Your task to perform on an android device: Go to Google Image 0: 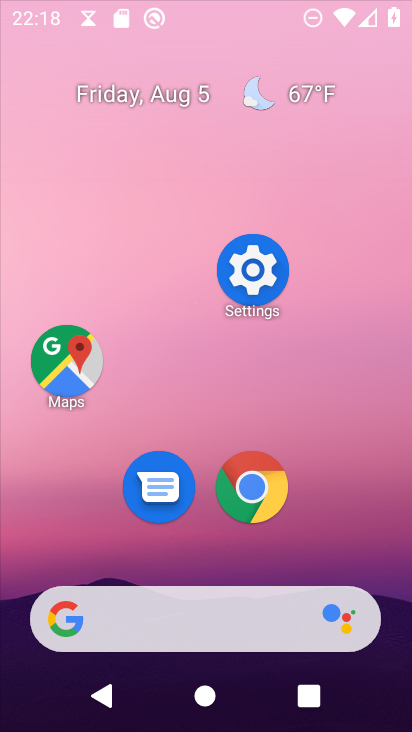
Step 0: press home button
Your task to perform on an android device: Go to Google Image 1: 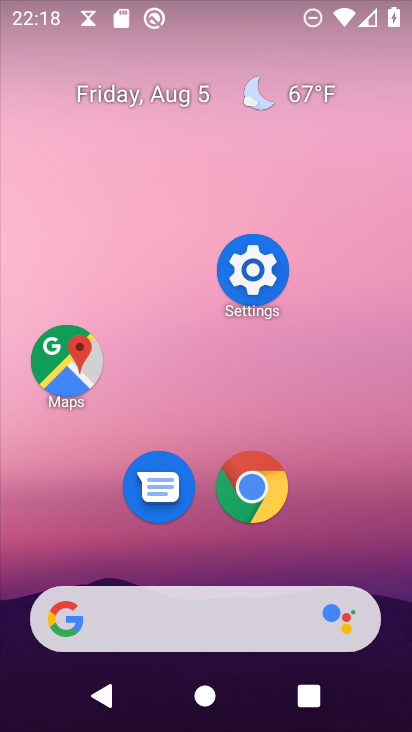
Step 1: drag from (212, 310) to (232, 63)
Your task to perform on an android device: Go to Google Image 2: 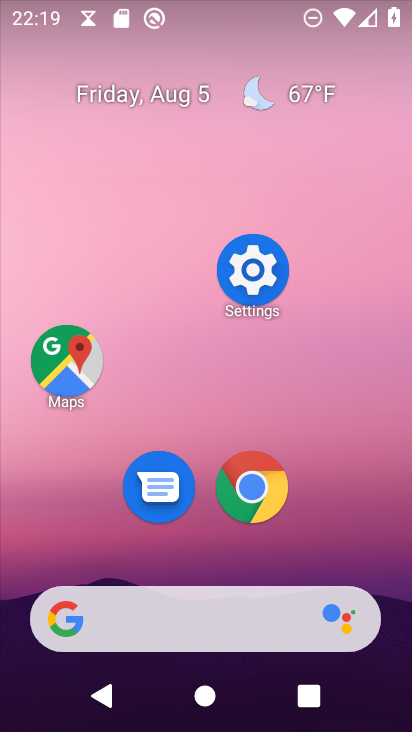
Step 2: drag from (218, 364) to (286, 84)
Your task to perform on an android device: Go to Google Image 3: 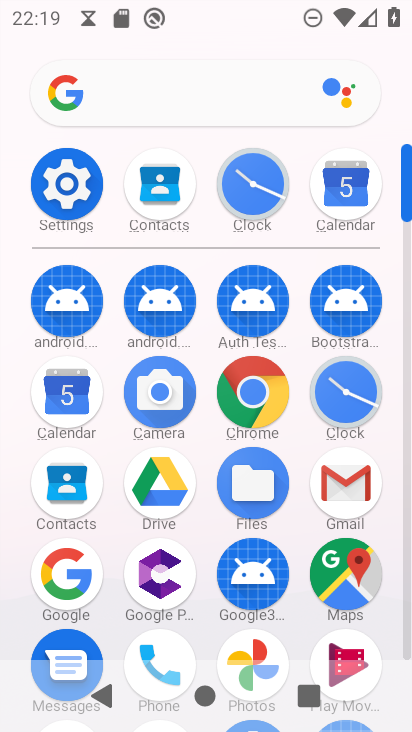
Step 3: click (67, 574)
Your task to perform on an android device: Go to Google Image 4: 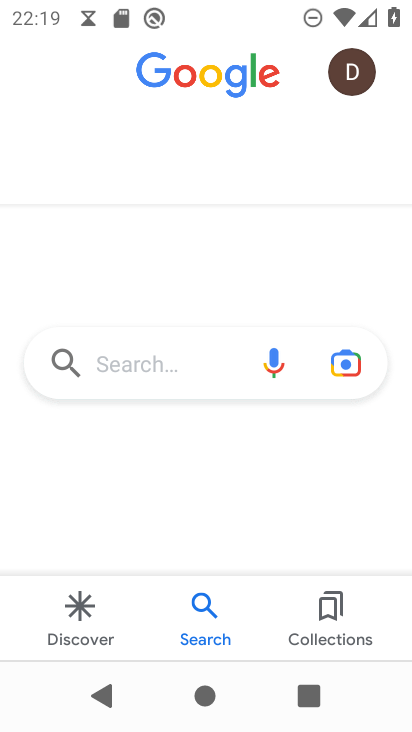
Step 4: task complete